Your task to perform on an android device: open a new tab in the chrome app Image 0: 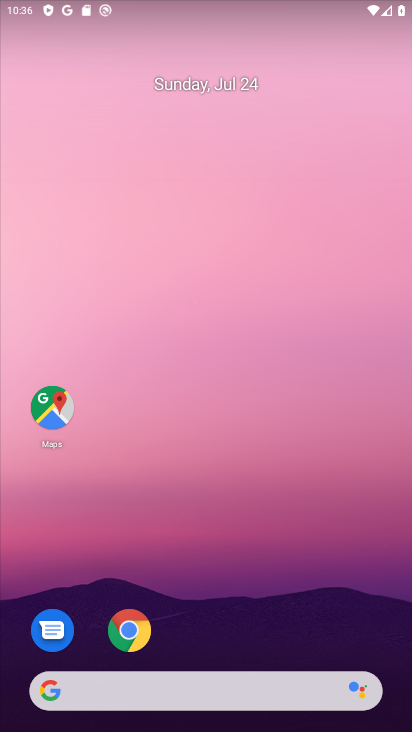
Step 0: press home button
Your task to perform on an android device: open a new tab in the chrome app Image 1: 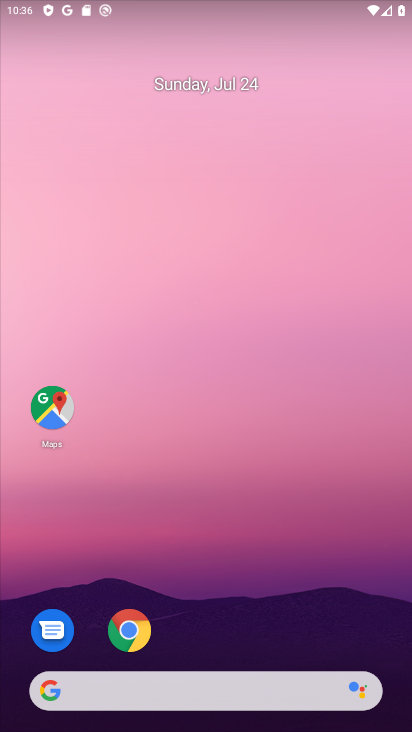
Step 1: click (131, 628)
Your task to perform on an android device: open a new tab in the chrome app Image 2: 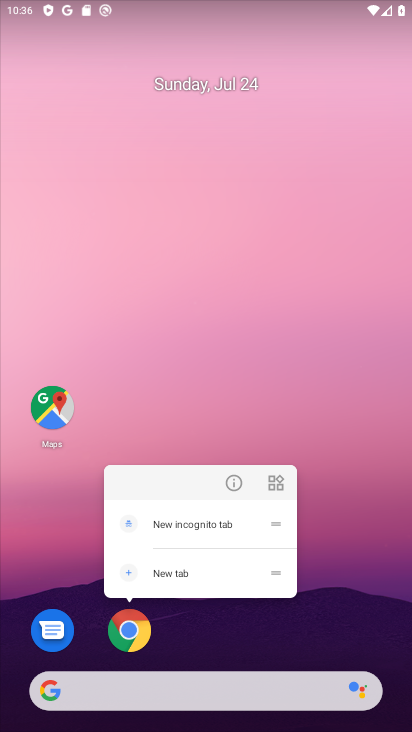
Step 2: click (155, 559)
Your task to perform on an android device: open a new tab in the chrome app Image 3: 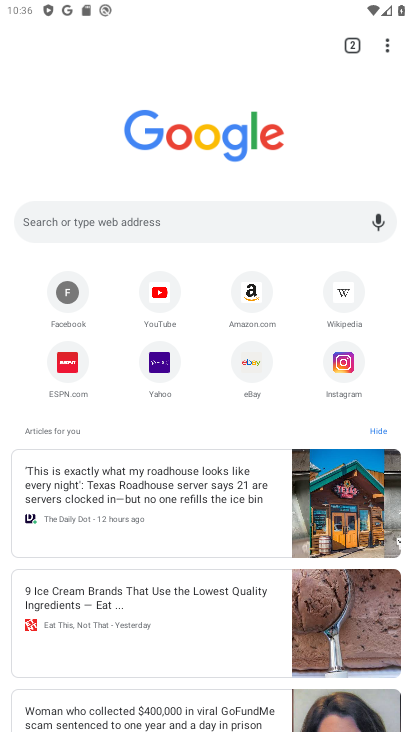
Step 3: task complete